Your task to perform on an android device: Go to CNN.com Image 0: 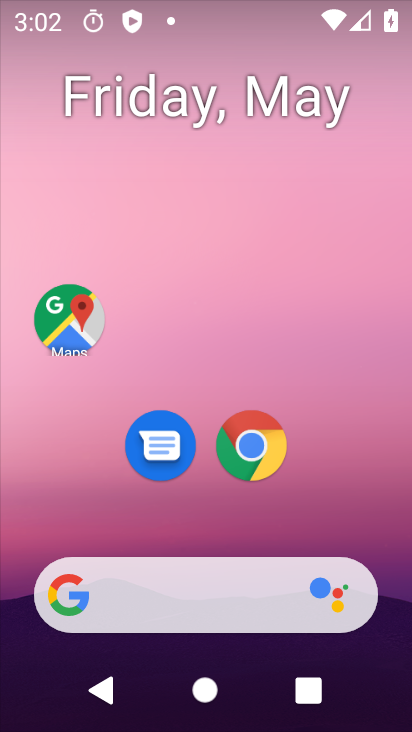
Step 0: drag from (275, 664) to (147, 116)
Your task to perform on an android device: Go to CNN.com Image 1: 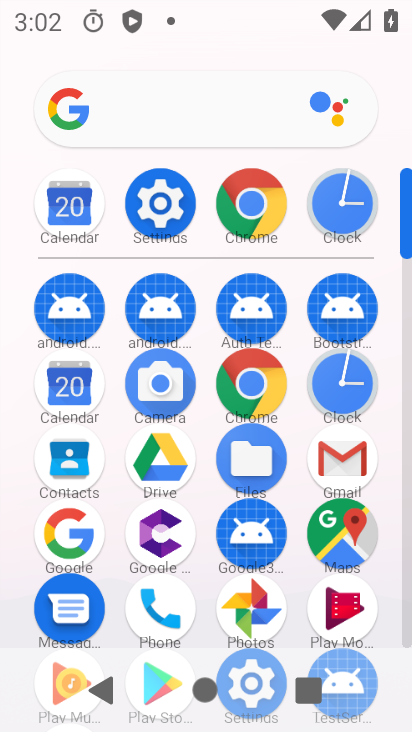
Step 1: click (253, 213)
Your task to perform on an android device: Go to CNN.com Image 2: 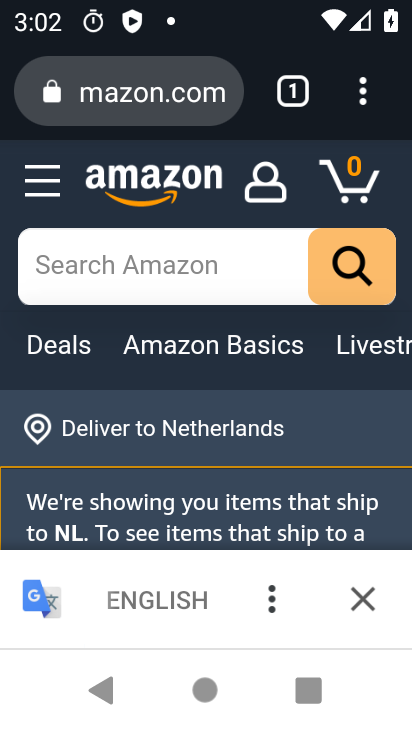
Step 2: click (203, 106)
Your task to perform on an android device: Go to CNN.com Image 3: 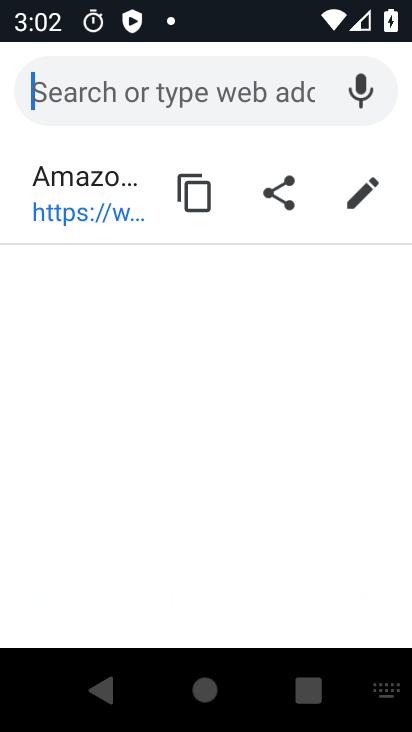
Step 3: type "cnn"
Your task to perform on an android device: Go to CNN.com Image 4: 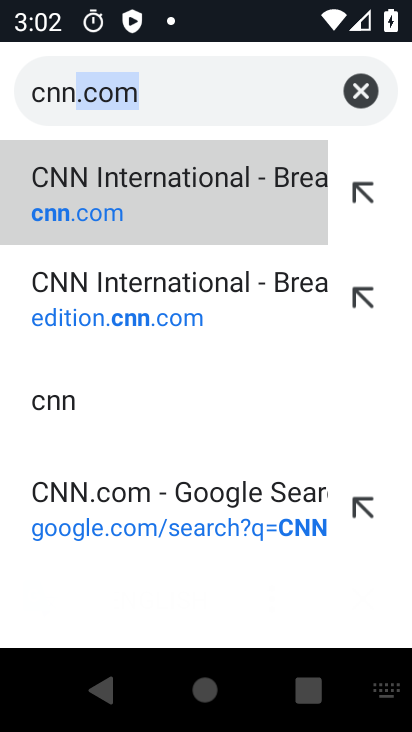
Step 4: click (212, 219)
Your task to perform on an android device: Go to CNN.com Image 5: 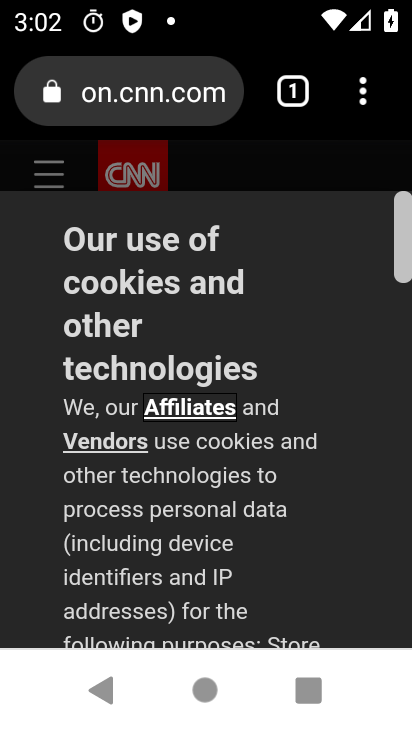
Step 5: task complete